Your task to perform on an android device: open a new tab in the chrome app Image 0: 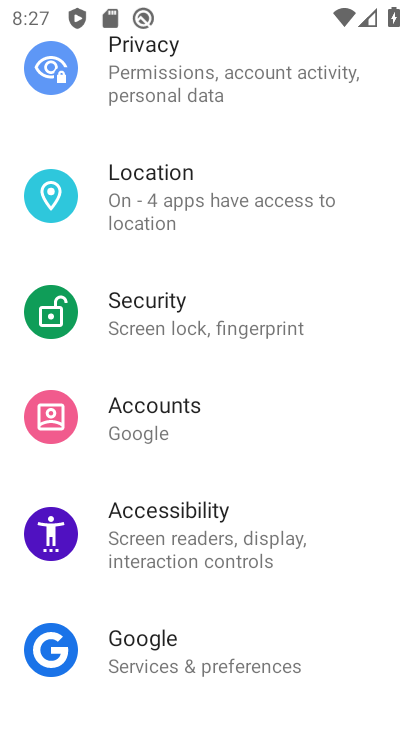
Step 0: press home button
Your task to perform on an android device: open a new tab in the chrome app Image 1: 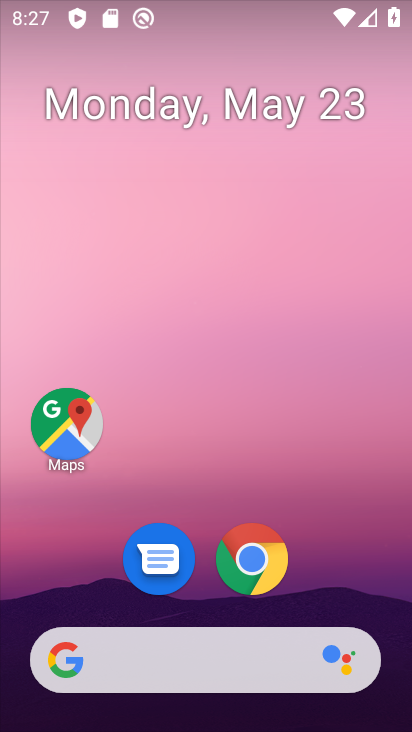
Step 1: click (254, 559)
Your task to perform on an android device: open a new tab in the chrome app Image 2: 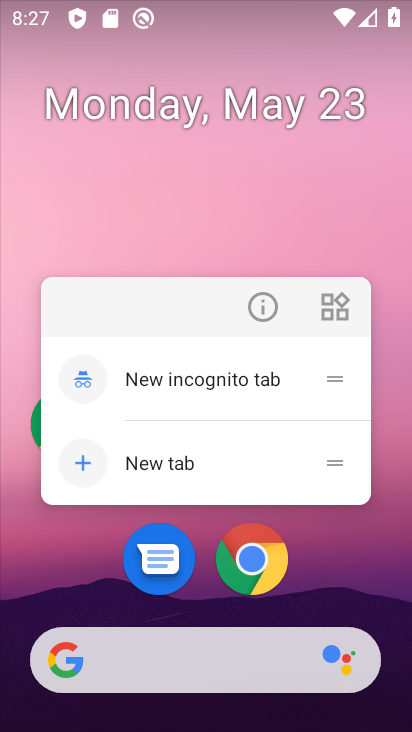
Step 2: click (250, 554)
Your task to perform on an android device: open a new tab in the chrome app Image 3: 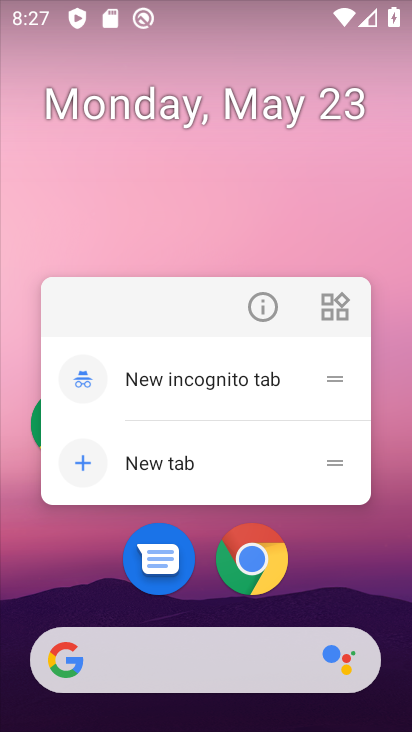
Step 3: click (241, 562)
Your task to perform on an android device: open a new tab in the chrome app Image 4: 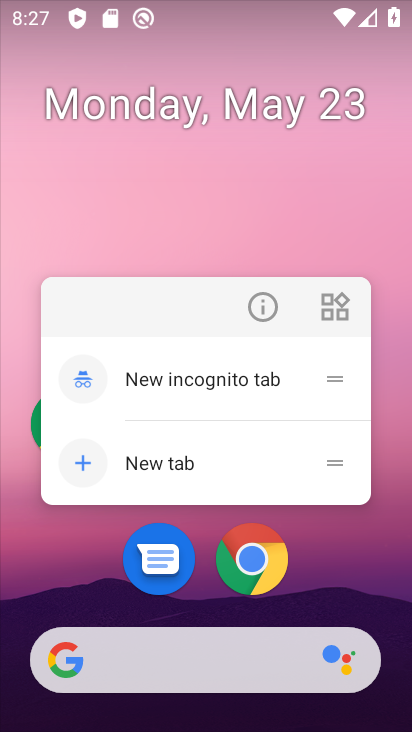
Step 4: click (241, 562)
Your task to perform on an android device: open a new tab in the chrome app Image 5: 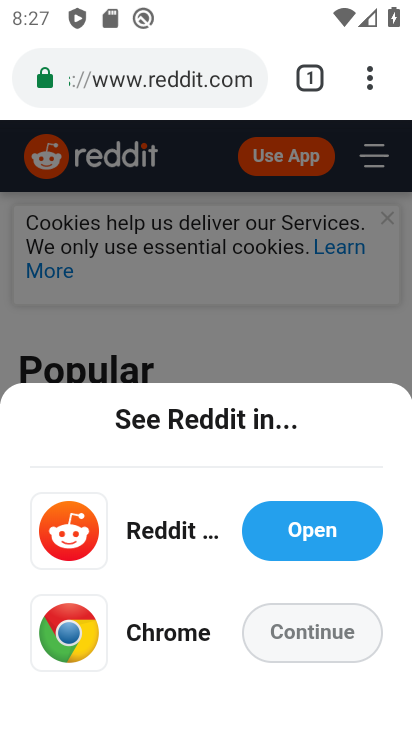
Step 5: click (376, 75)
Your task to perform on an android device: open a new tab in the chrome app Image 6: 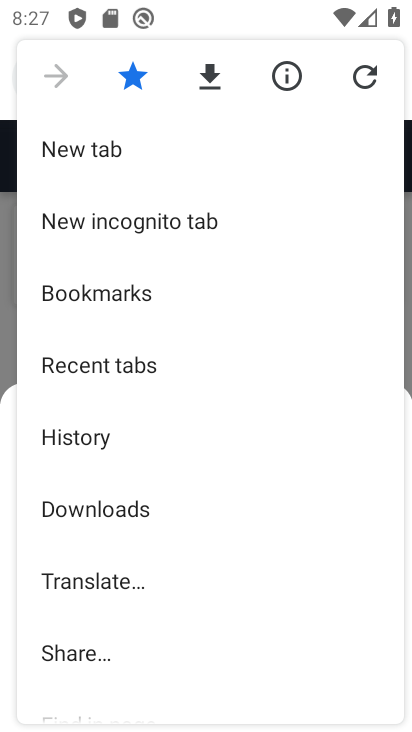
Step 6: click (136, 140)
Your task to perform on an android device: open a new tab in the chrome app Image 7: 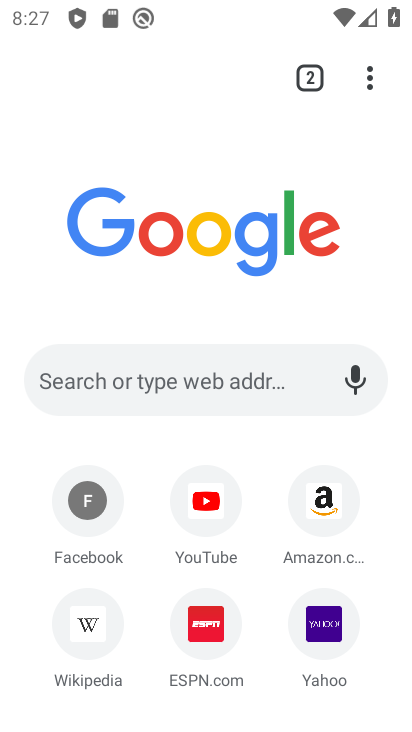
Step 7: task complete